Your task to perform on an android device: turn on the 12-hour format for clock Image 0: 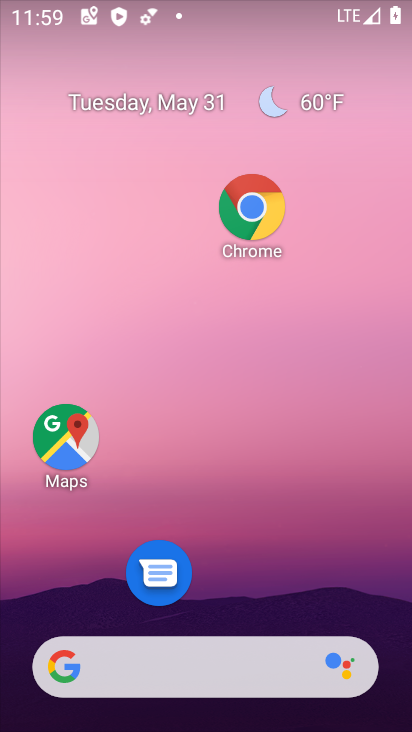
Step 0: drag from (216, 596) to (231, 150)
Your task to perform on an android device: turn on the 12-hour format for clock Image 1: 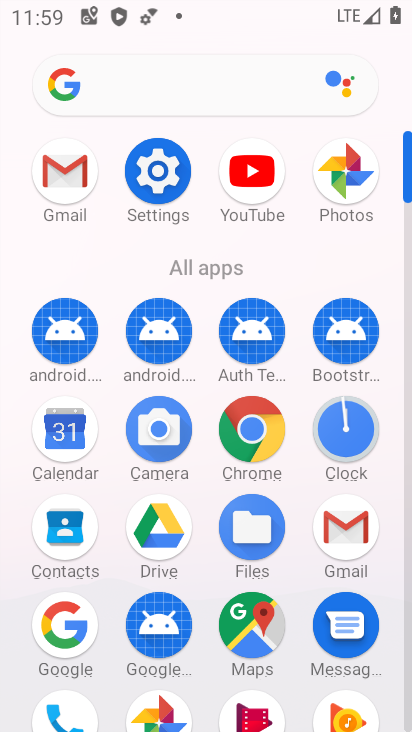
Step 1: click (360, 423)
Your task to perform on an android device: turn on the 12-hour format for clock Image 2: 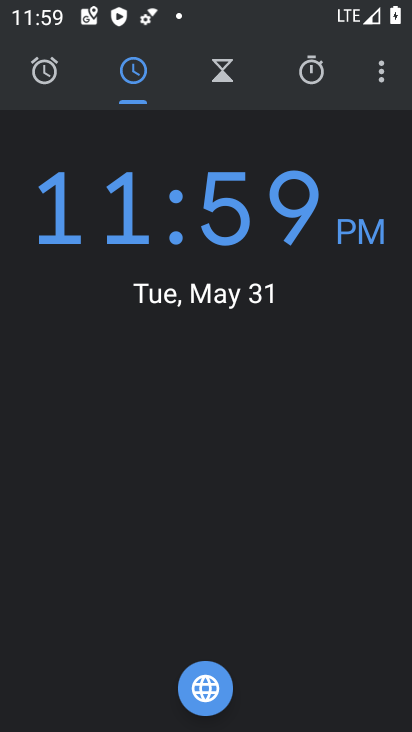
Step 2: click (378, 78)
Your task to perform on an android device: turn on the 12-hour format for clock Image 3: 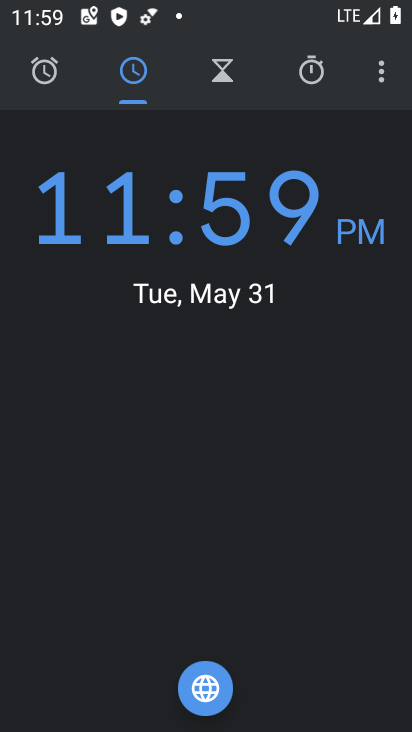
Step 3: click (373, 79)
Your task to perform on an android device: turn on the 12-hour format for clock Image 4: 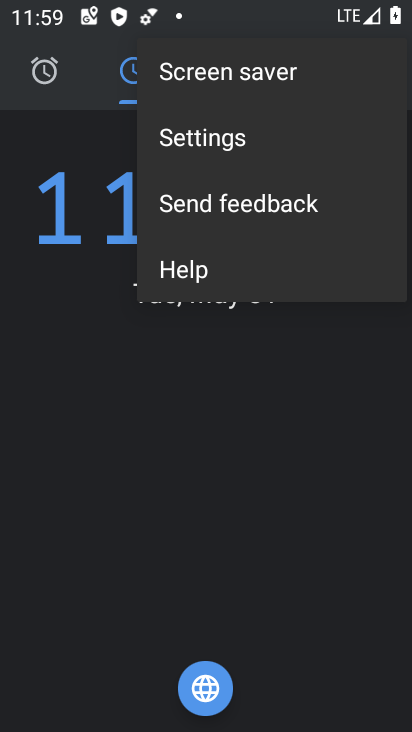
Step 4: click (195, 148)
Your task to perform on an android device: turn on the 12-hour format for clock Image 5: 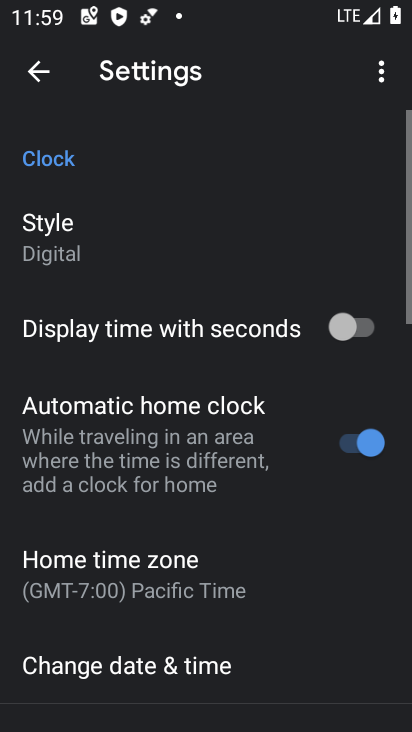
Step 5: drag from (185, 611) to (205, 351)
Your task to perform on an android device: turn on the 12-hour format for clock Image 6: 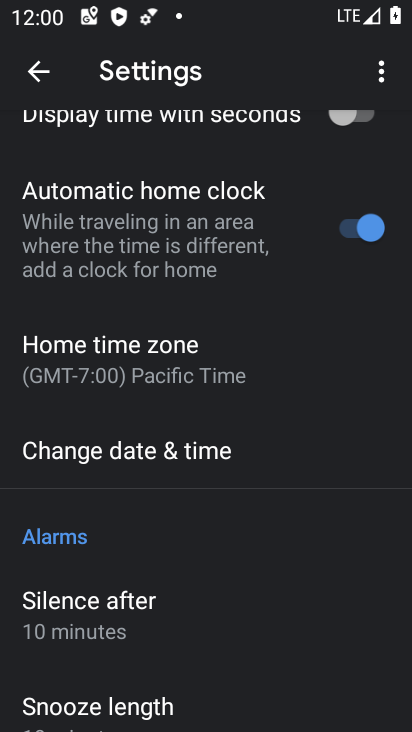
Step 6: click (195, 437)
Your task to perform on an android device: turn on the 12-hour format for clock Image 7: 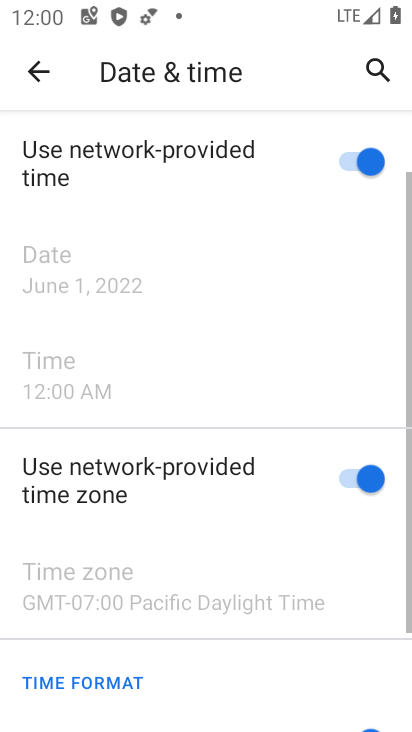
Step 7: task complete